Your task to perform on an android device: What's the news in Japan? Image 0: 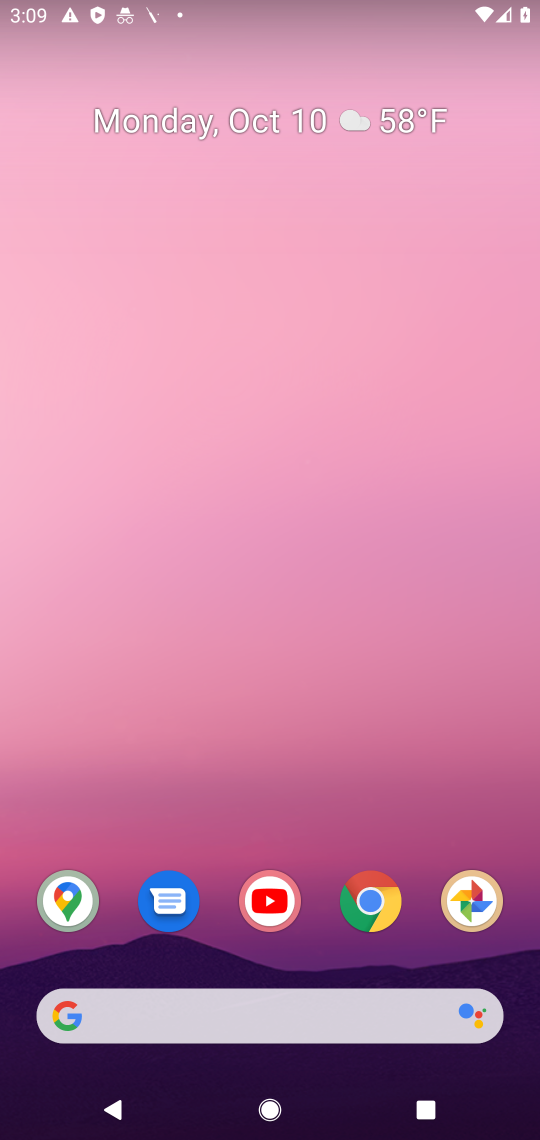
Step 0: drag from (387, 1024) to (389, 487)
Your task to perform on an android device: What's the news in Japan? Image 1: 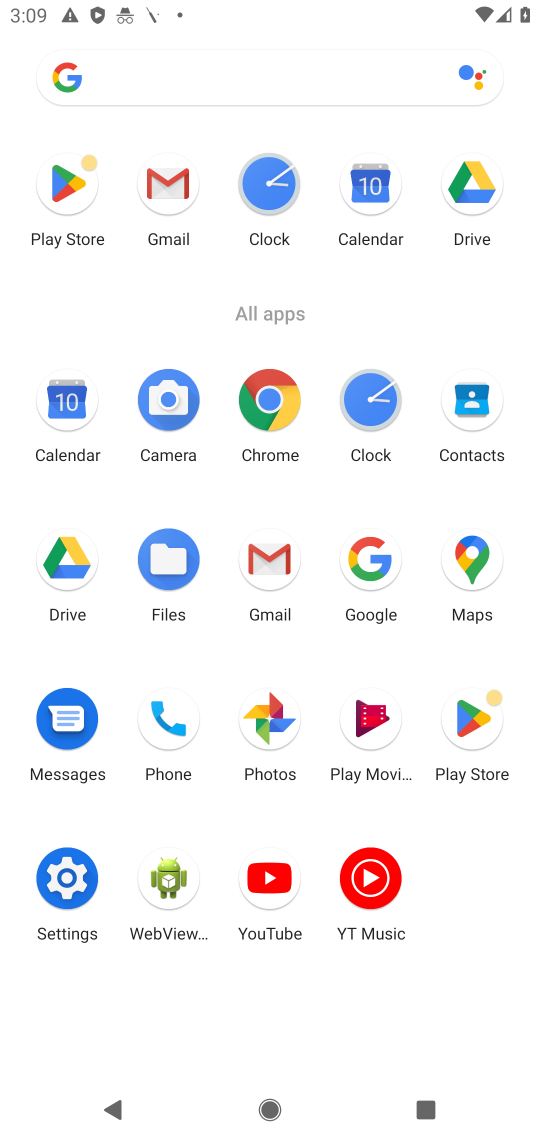
Step 1: click (364, 587)
Your task to perform on an android device: What's the news in Japan? Image 2: 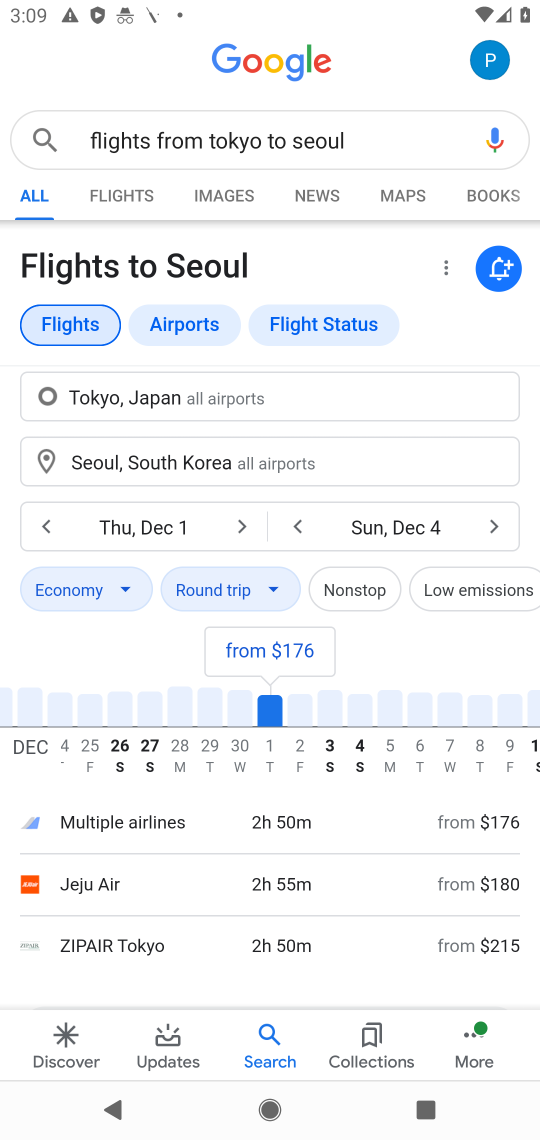
Step 2: click (385, 147)
Your task to perform on an android device: What's the news in Japan? Image 3: 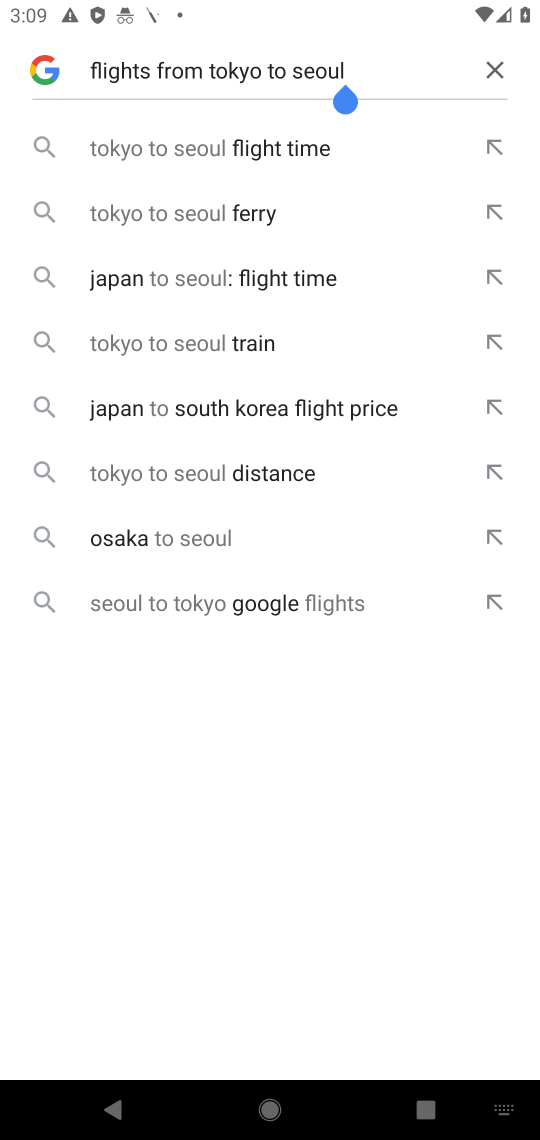
Step 3: click (499, 77)
Your task to perform on an android device: What's the news in Japan? Image 4: 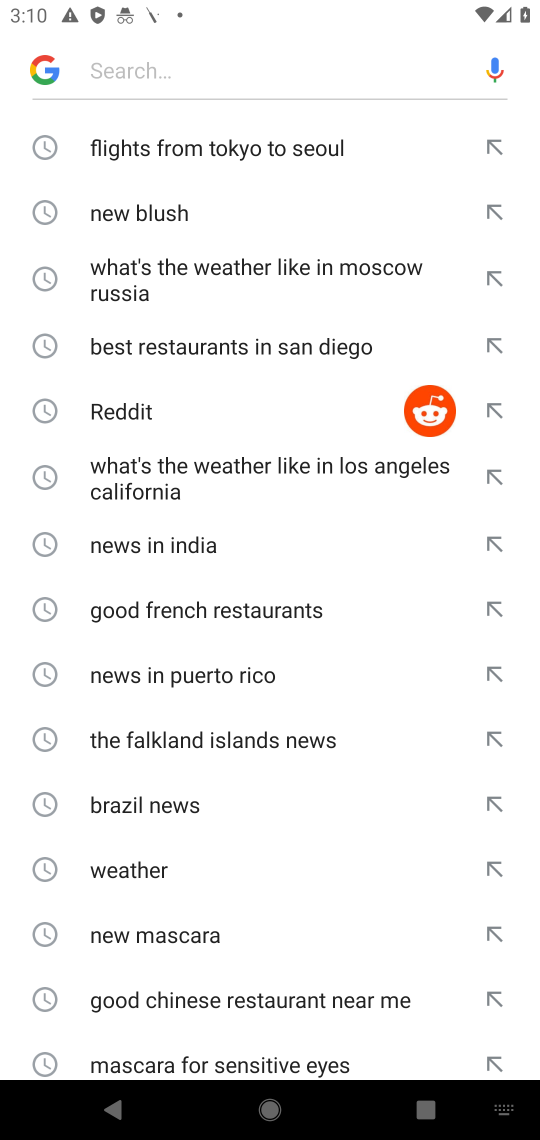
Step 4: type "news in Japan"
Your task to perform on an android device: What's the news in Japan? Image 5: 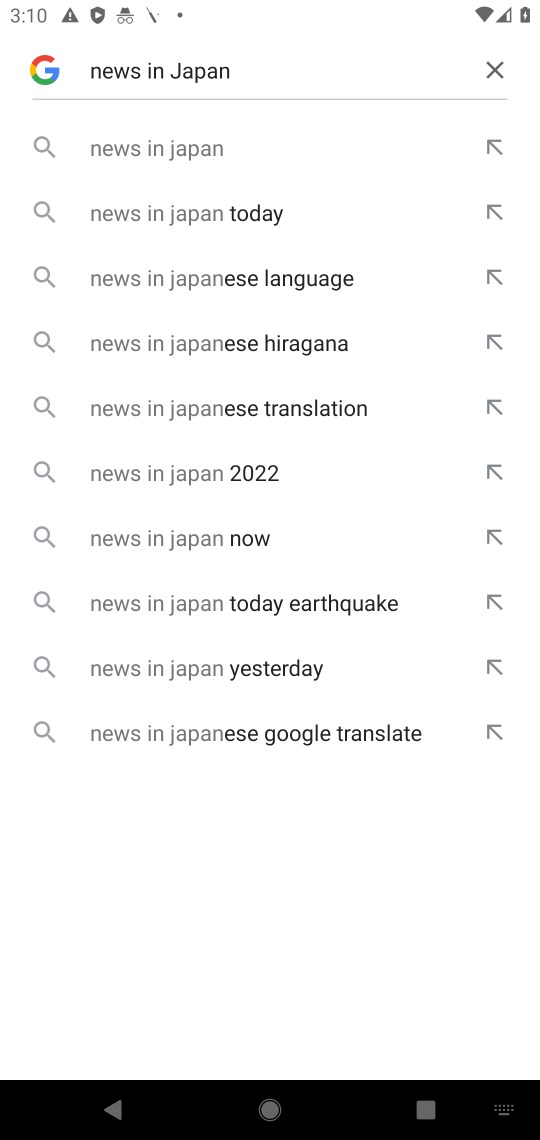
Step 5: click (269, 156)
Your task to perform on an android device: What's the news in Japan? Image 6: 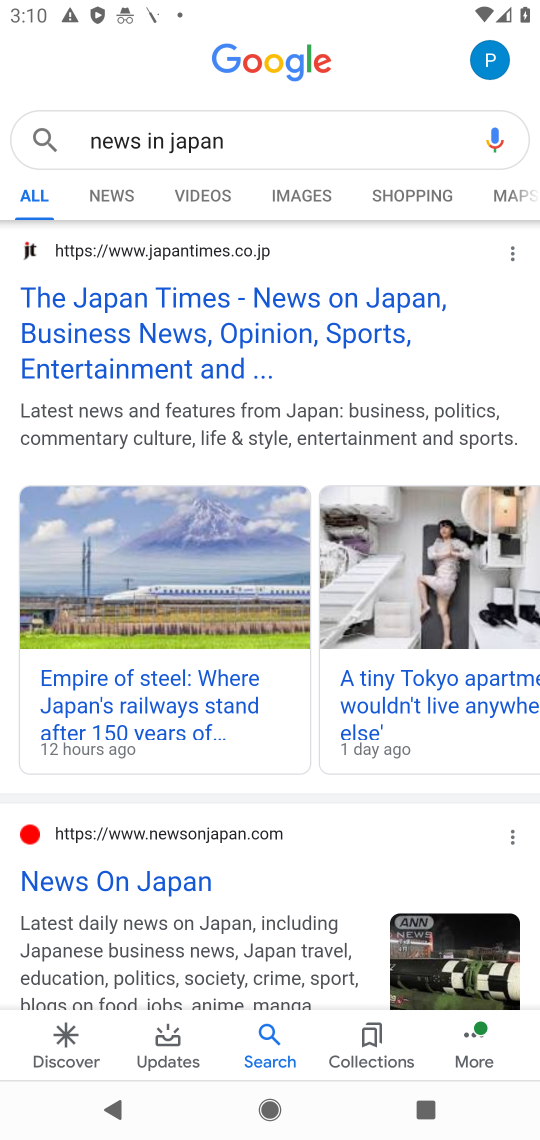
Step 6: click (122, 193)
Your task to perform on an android device: What's the news in Japan? Image 7: 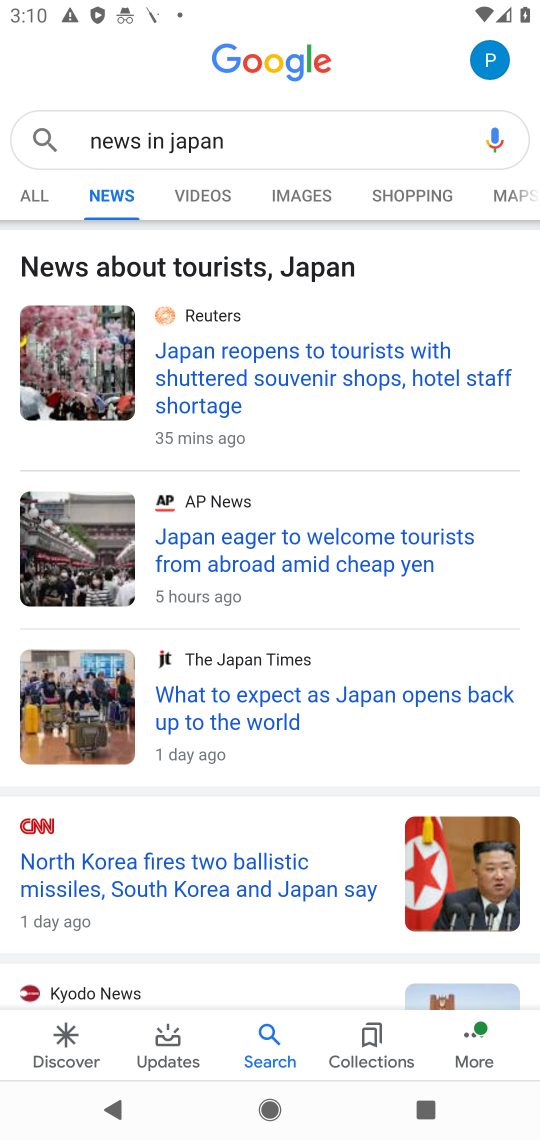
Step 7: task complete